Your task to perform on an android device: turn on priority inbox in the gmail app Image 0: 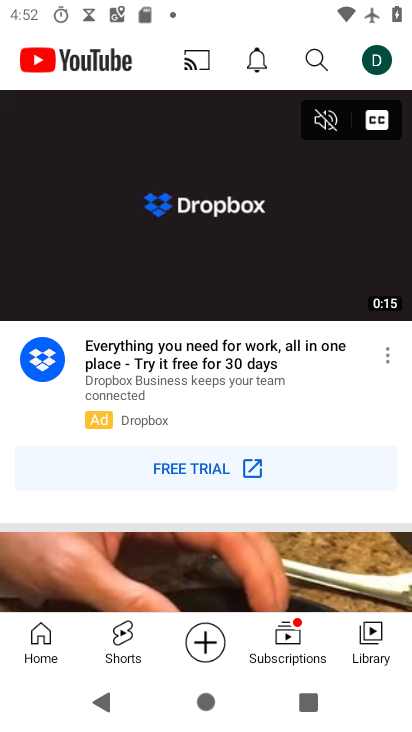
Step 0: press home button
Your task to perform on an android device: turn on priority inbox in the gmail app Image 1: 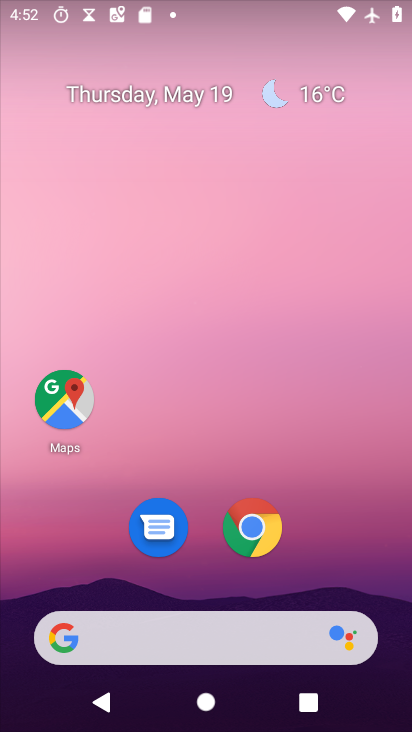
Step 1: drag from (329, 521) to (191, 19)
Your task to perform on an android device: turn on priority inbox in the gmail app Image 2: 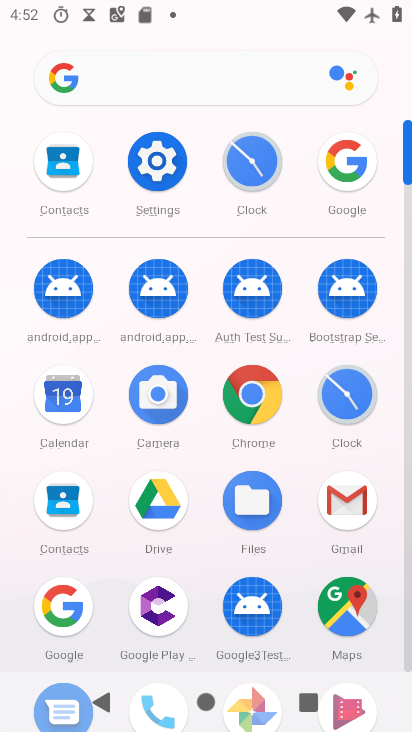
Step 2: click (347, 508)
Your task to perform on an android device: turn on priority inbox in the gmail app Image 3: 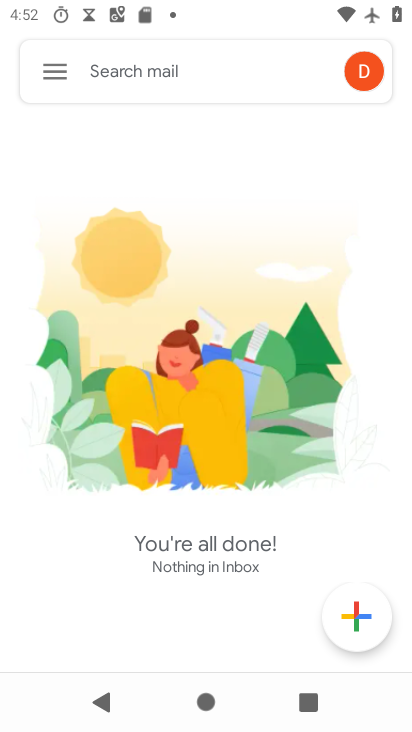
Step 3: click (53, 68)
Your task to perform on an android device: turn on priority inbox in the gmail app Image 4: 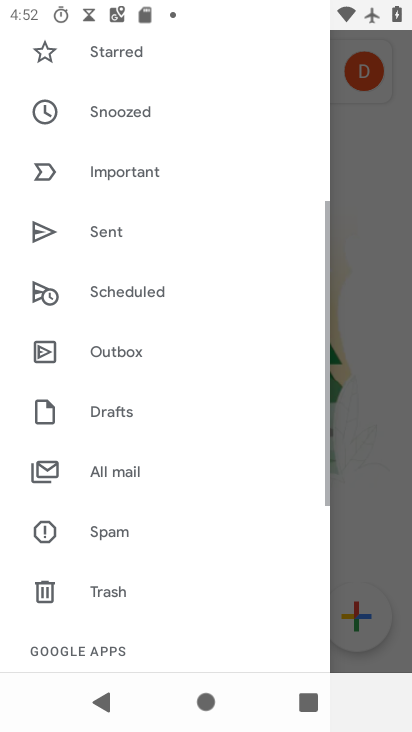
Step 4: drag from (204, 581) to (175, 165)
Your task to perform on an android device: turn on priority inbox in the gmail app Image 5: 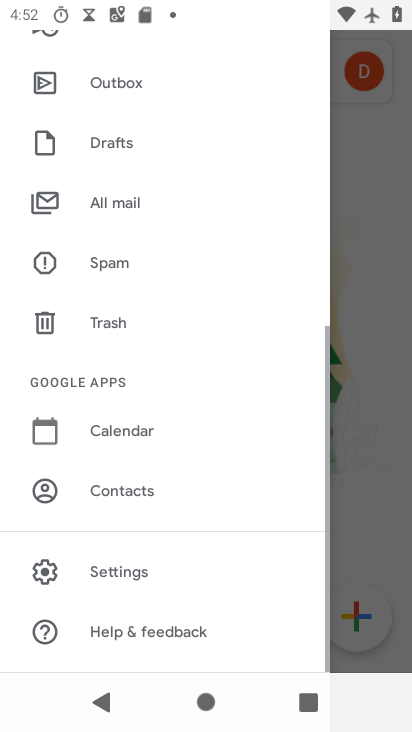
Step 5: click (158, 579)
Your task to perform on an android device: turn on priority inbox in the gmail app Image 6: 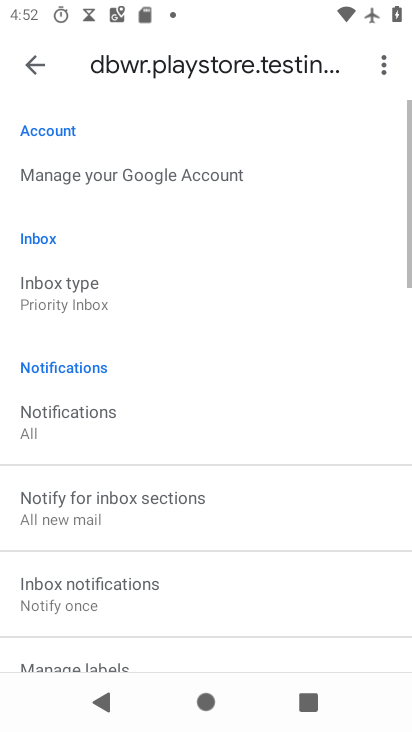
Step 6: click (106, 288)
Your task to perform on an android device: turn on priority inbox in the gmail app Image 7: 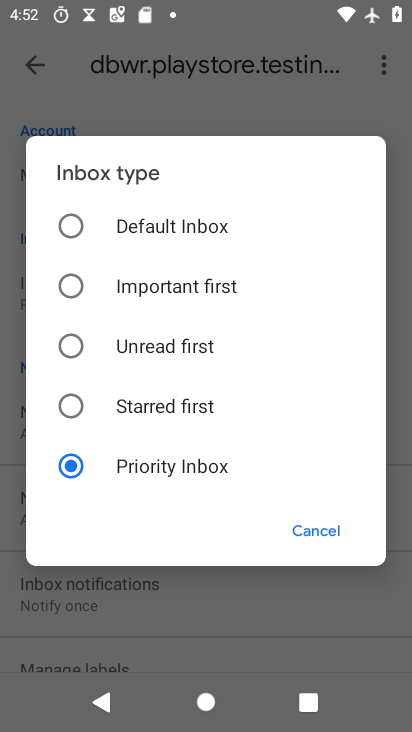
Step 7: task complete